Your task to perform on an android device: uninstall "McDonald's" Image 0: 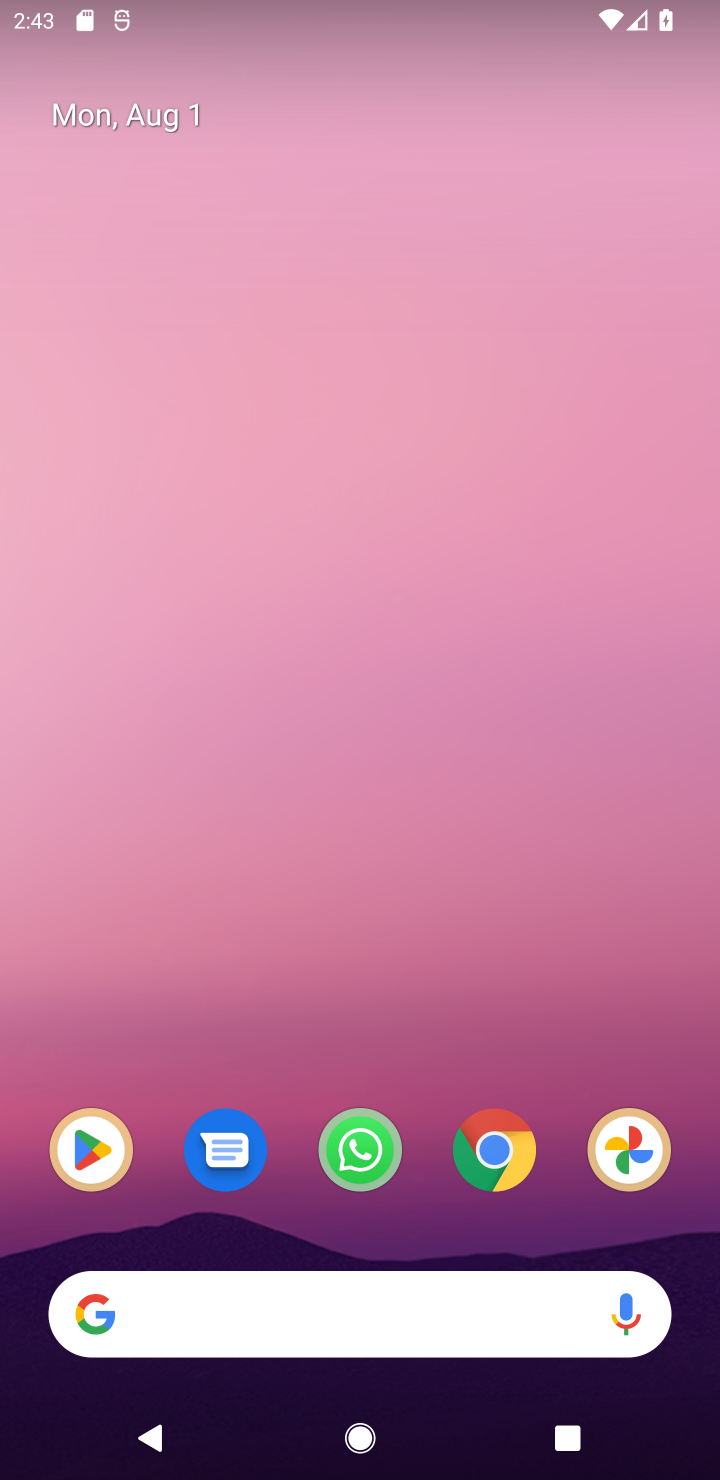
Step 0: task impossible